Your task to perform on an android device: open a bookmark in the chrome app Image 0: 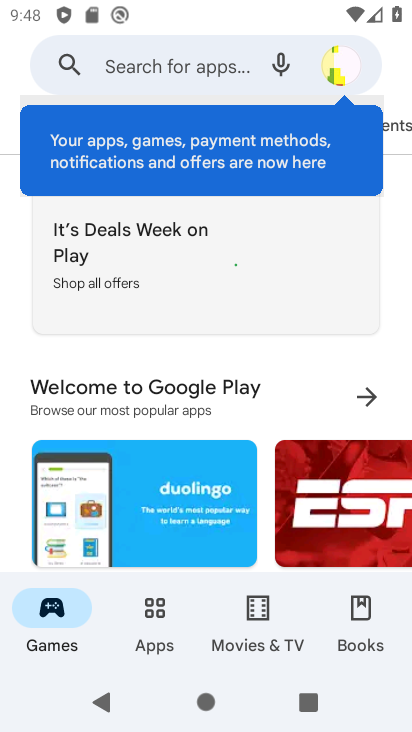
Step 0: press back button
Your task to perform on an android device: open a bookmark in the chrome app Image 1: 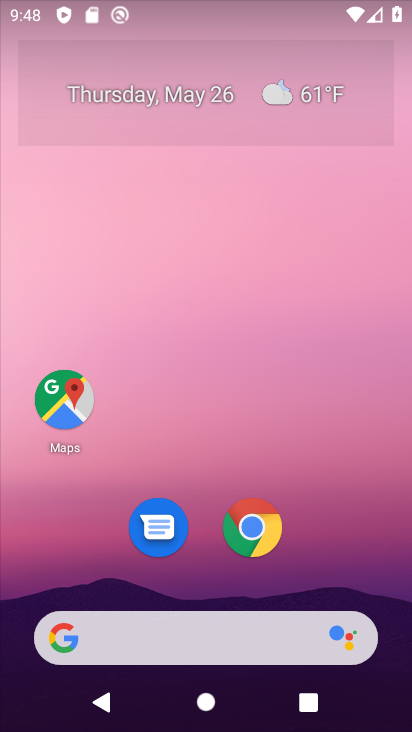
Step 1: click (253, 516)
Your task to perform on an android device: open a bookmark in the chrome app Image 2: 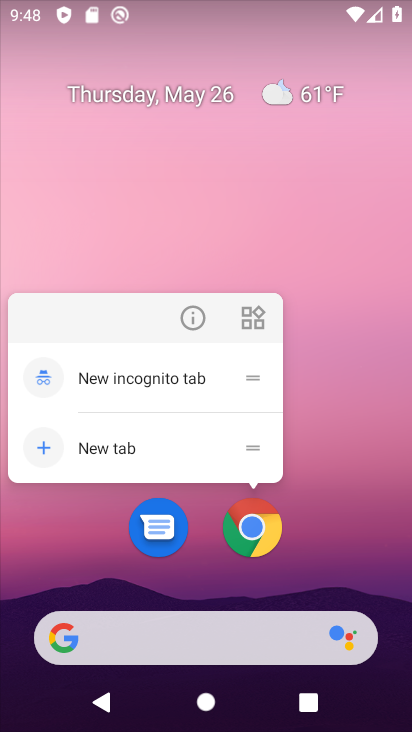
Step 2: click (259, 516)
Your task to perform on an android device: open a bookmark in the chrome app Image 3: 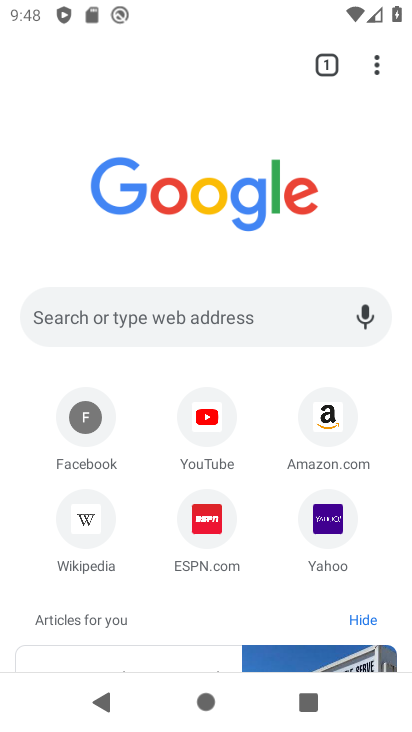
Step 3: task complete